Your task to perform on an android device: add a label to a message in the gmail app Image 0: 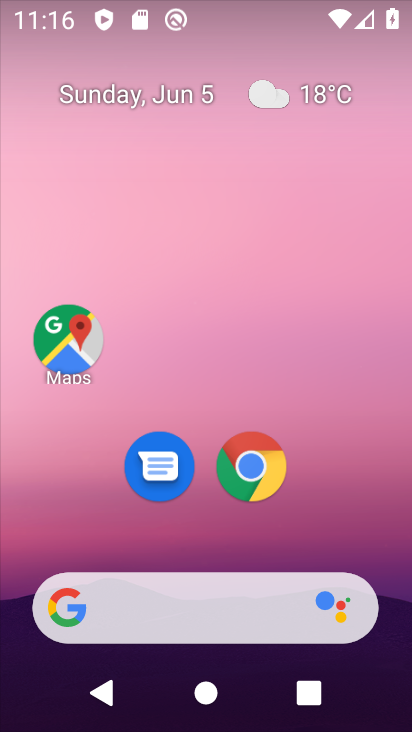
Step 0: drag from (332, 543) to (354, 158)
Your task to perform on an android device: add a label to a message in the gmail app Image 1: 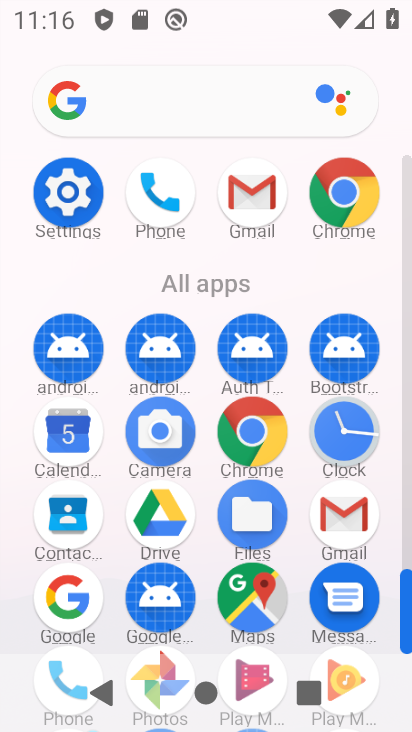
Step 1: click (354, 529)
Your task to perform on an android device: add a label to a message in the gmail app Image 2: 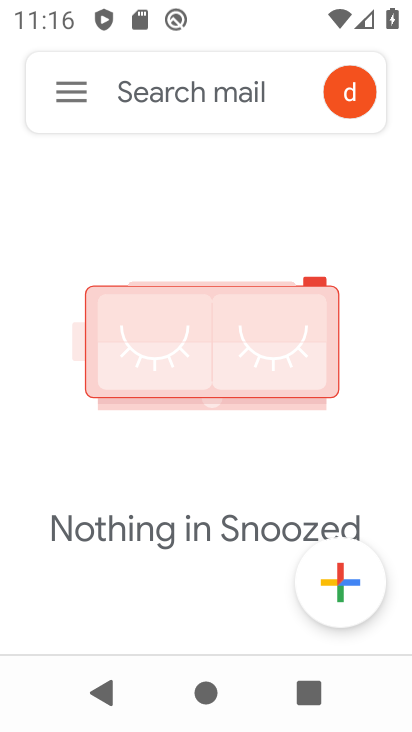
Step 2: click (63, 114)
Your task to perform on an android device: add a label to a message in the gmail app Image 3: 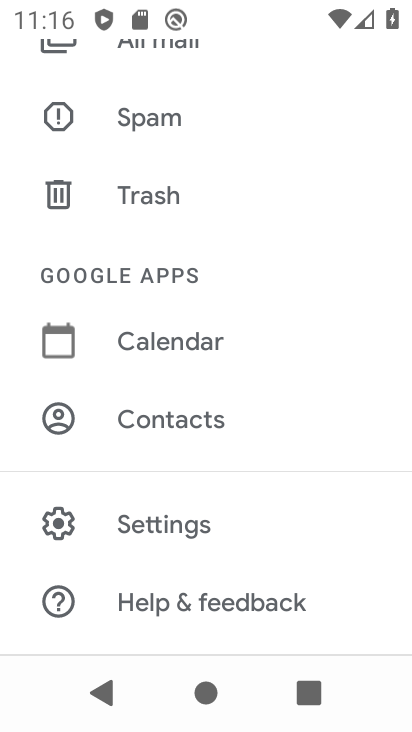
Step 3: drag from (219, 274) to (192, 562)
Your task to perform on an android device: add a label to a message in the gmail app Image 4: 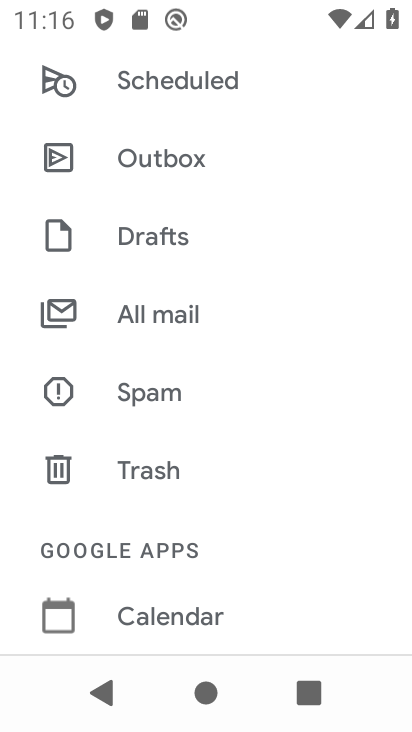
Step 4: click (193, 304)
Your task to perform on an android device: add a label to a message in the gmail app Image 5: 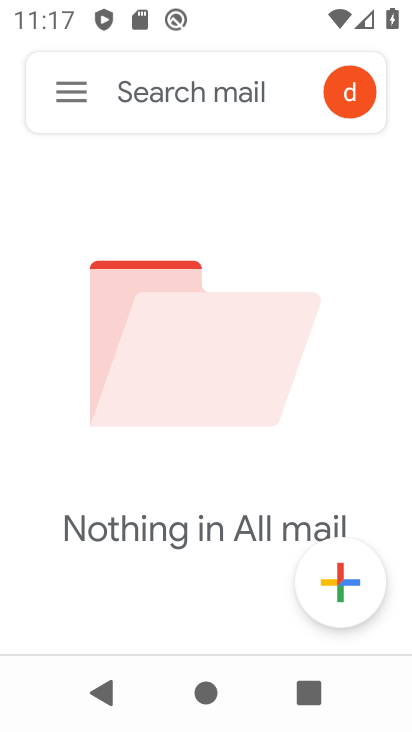
Step 5: task complete